Your task to perform on an android device: clear all cookies in the chrome app Image 0: 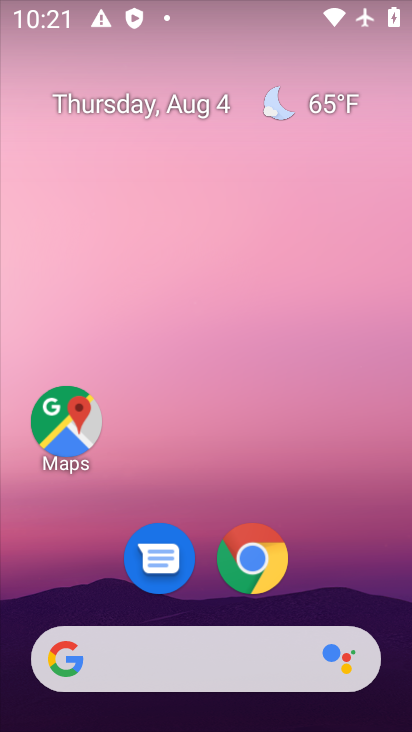
Step 0: drag from (343, 576) to (292, 104)
Your task to perform on an android device: clear all cookies in the chrome app Image 1: 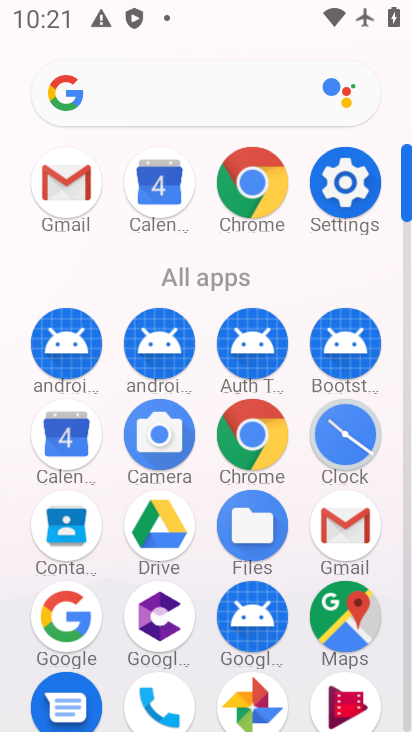
Step 1: click (250, 448)
Your task to perform on an android device: clear all cookies in the chrome app Image 2: 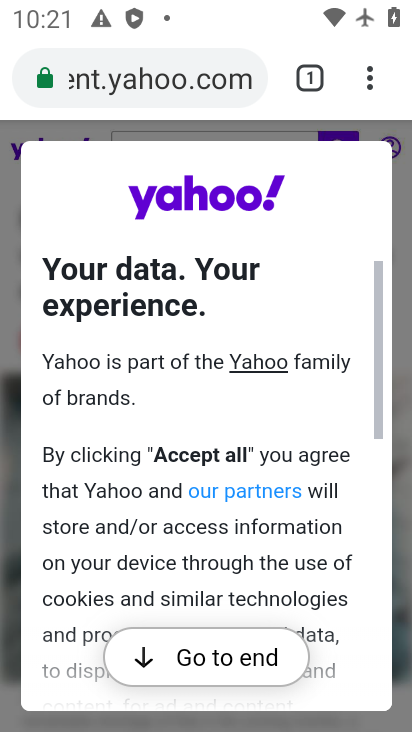
Step 2: drag from (368, 76) to (154, 599)
Your task to perform on an android device: clear all cookies in the chrome app Image 3: 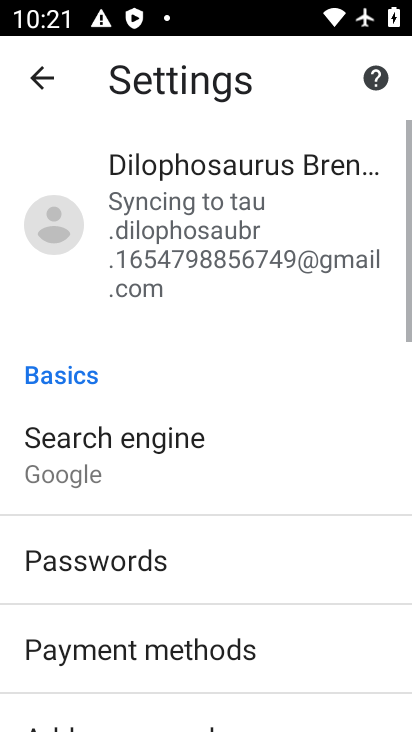
Step 3: drag from (278, 612) to (310, 91)
Your task to perform on an android device: clear all cookies in the chrome app Image 4: 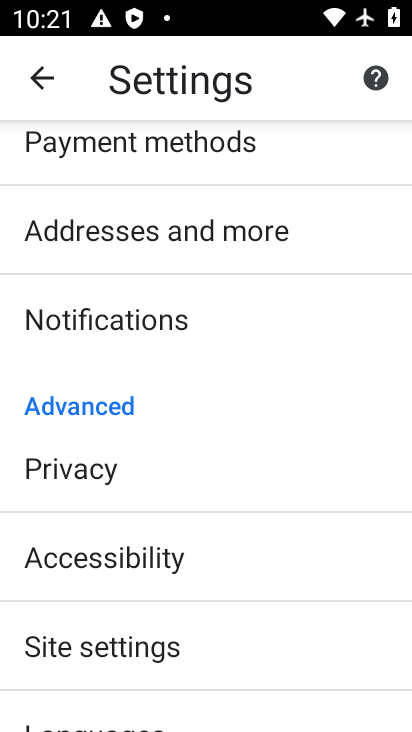
Step 4: drag from (282, 535) to (353, 196)
Your task to perform on an android device: clear all cookies in the chrome app Image 5: 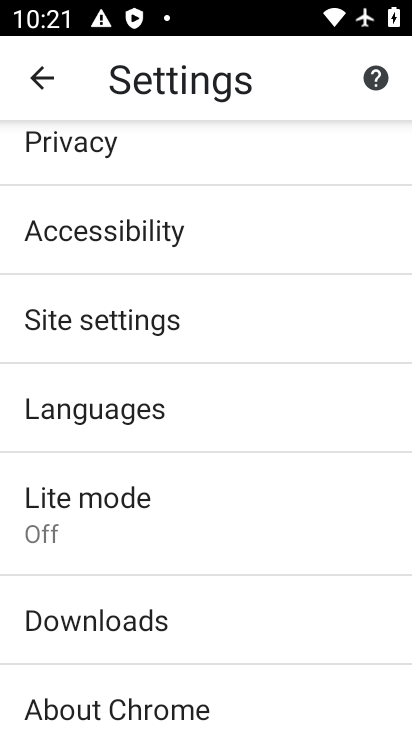
Step 5: press back button
Your task to perform on an android device: clear all cookies in the chrome app Image 6: 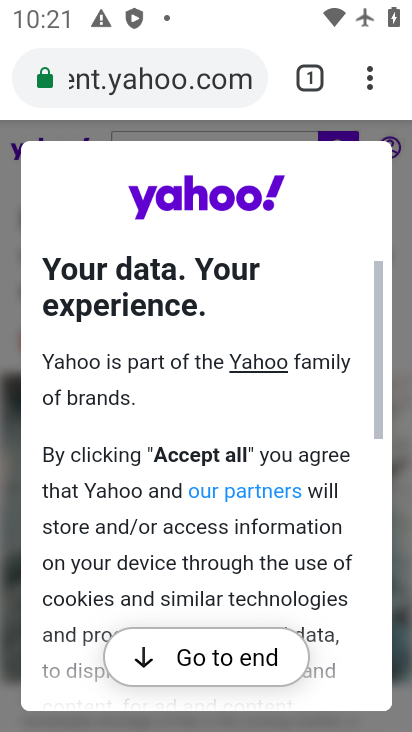
Step 6: drag from (376, 74) to (75, 433)
Your task to perform on an android device: clear all cookies in the chrome app Image 7: 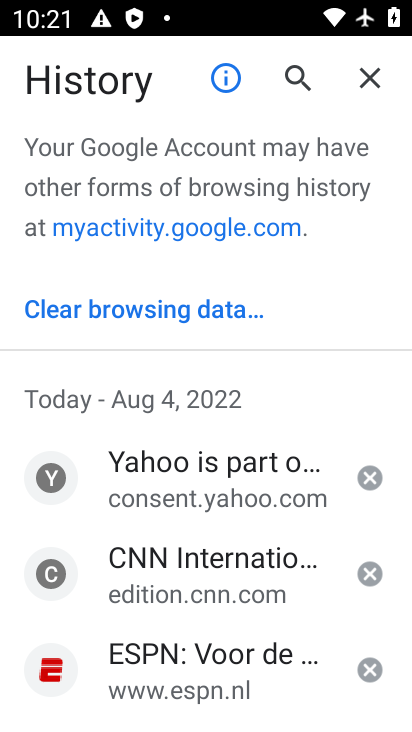
Step 7: click (143, 313)
Your task to perform on an android device: clear all cookies in the chrome app Image 8: 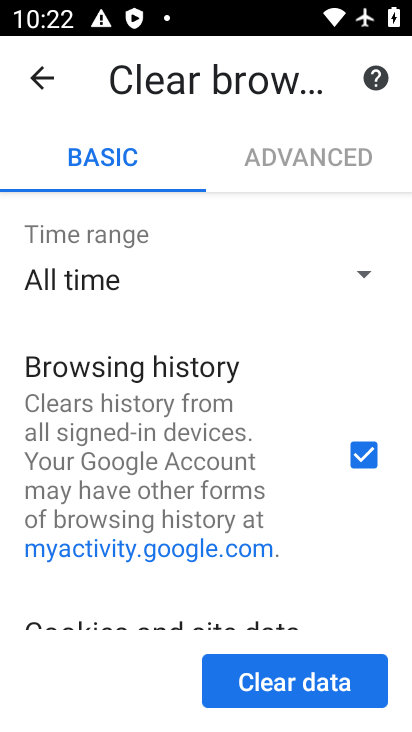
Step 8: drag from (179, 527) to (267, 177)
Your task to perform on an android device: clear all cookies in the chrome app Image 9: 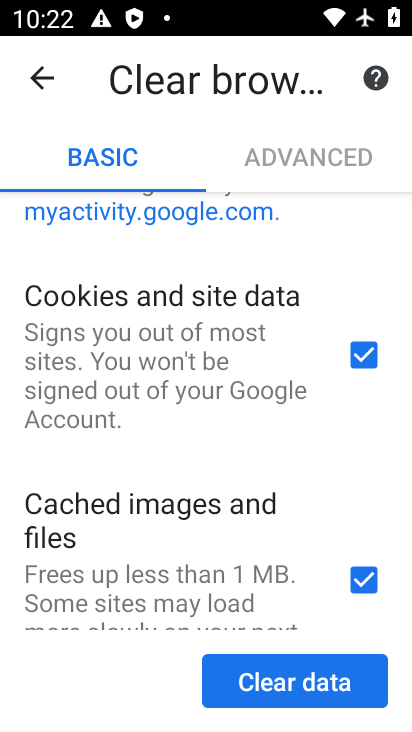
Step 9: drag from (244, 450) to (303, 185)
Your task to perform on an android device: clear all cookies in the chrome app Image 10: 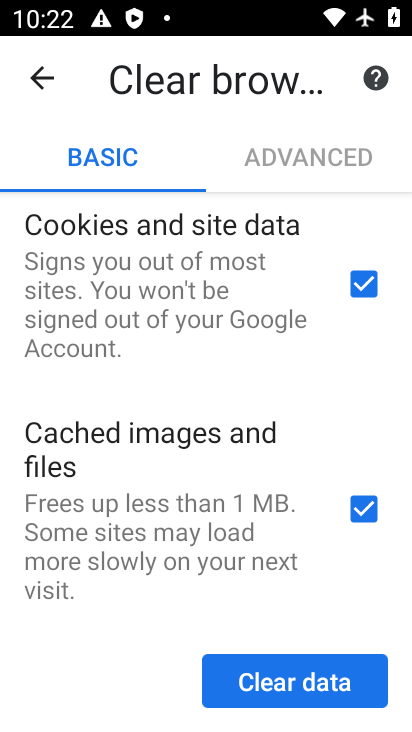
Step 10: drag from (242, 296) to (198, 636)
Your task to perform on an android device: clear all cookies in the chrome app Image 11: 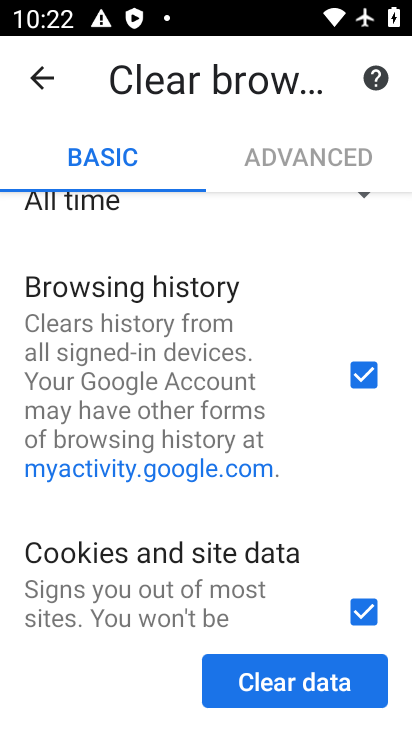
Step 11: drag from (202, 363) to (197, 486)
Your task to perform on an android device: clear all cookies in the chrome app Image 12: 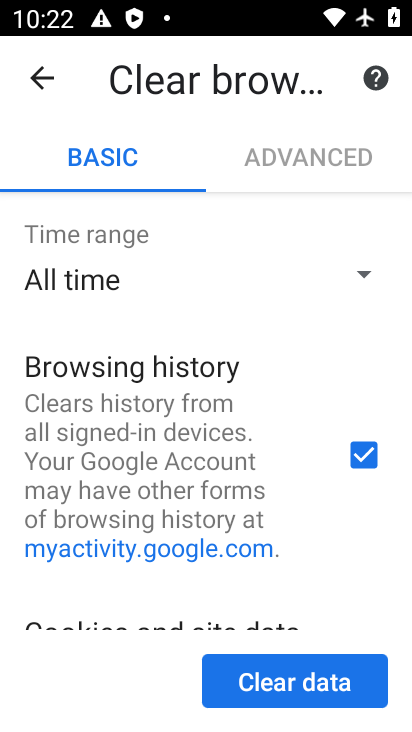
Step 12: drag from (193, 476) to (293, 235)
Your task to perform on an android device: clear all cookies in the chrome app Image 13: 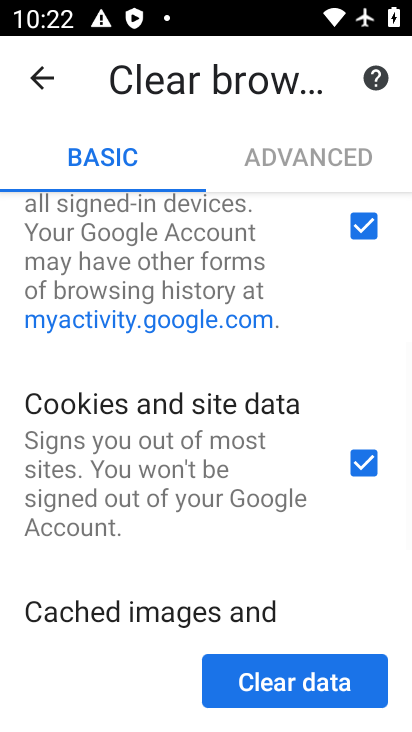
Step 13: drag from (198, 502) to (292, 292)
Your task to perform on an android device: clear all cookies in the chrome app Image 14: 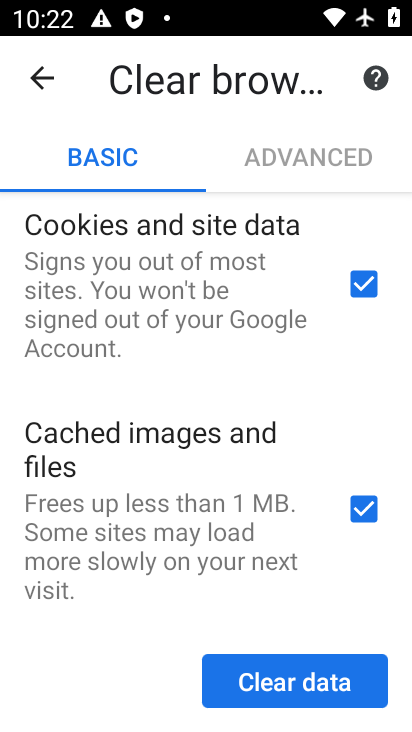
Step 14: click (299, 695)
Your task to perform on an android device: clear all cookies in the chrome app Image 15: 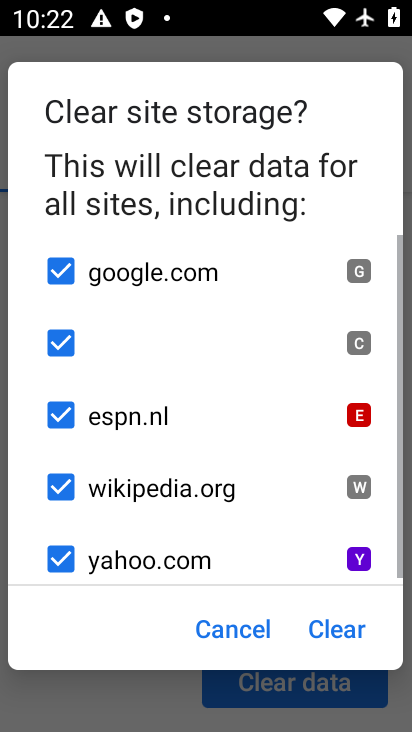
Step 15: click (343, 635)
Your task to perform on an android device: clear all cookies in the chrome app Image 16: 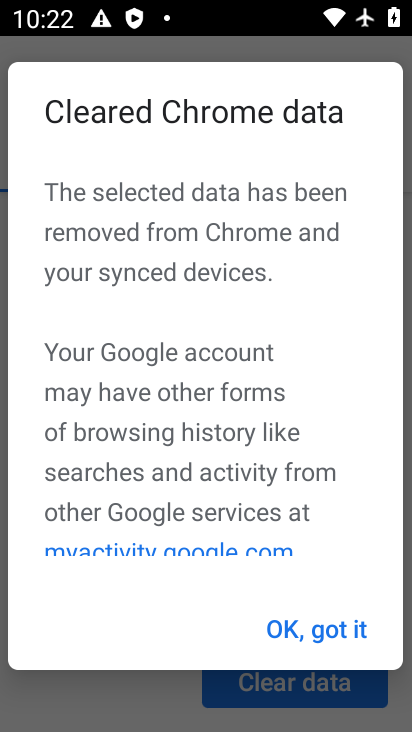
Step 16: task complete